Your task to perform on an android device: open the mobile data screen to see how much data has been used Image 0: 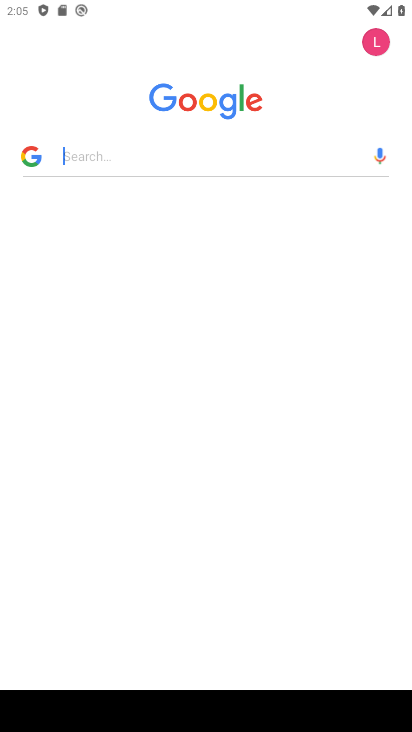
Step 0: press back button
Your task to perform on an android device: open the mobile data screen to see how much data has been used Image 1: 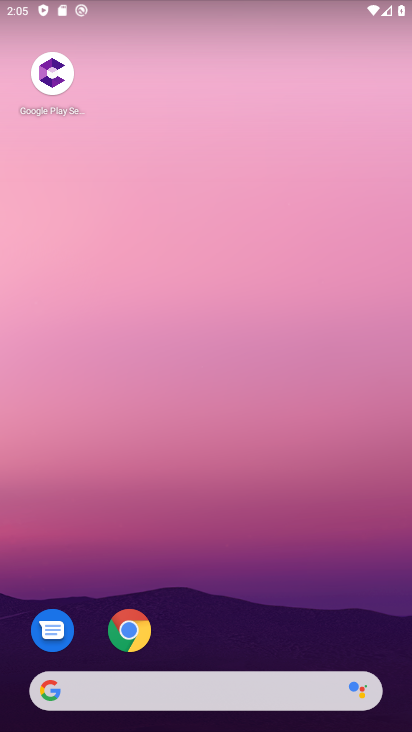
Step 1: drag from (276, 701) to (158, 147)
Your task to perform on an android device: open the mobile data screen to see how much data has been used Image 2: 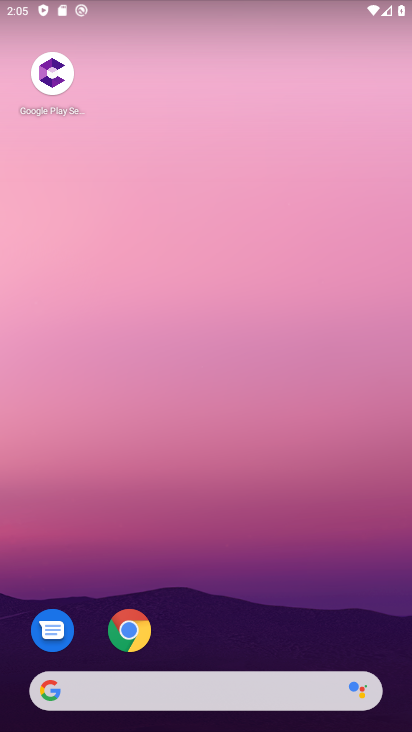
Step 2: drag from (177, 509) to (154, 177)
Your task to perform on an android device: open the mobile data screen to see how much data has been used Image 3: 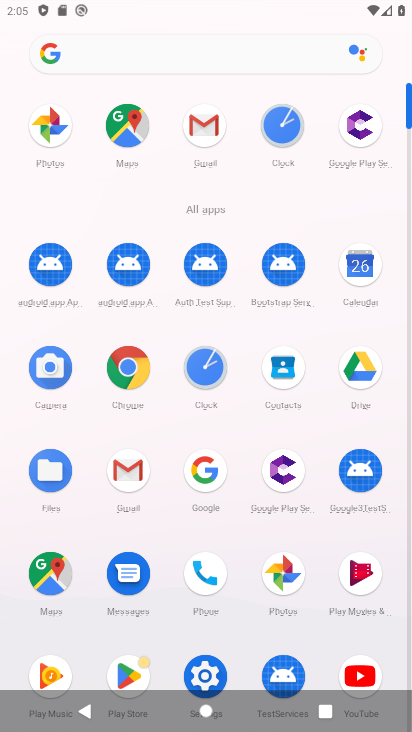
Step 3: drag from (297, 96) to (277, 4)
Your task to perform on an android device: open the mobile data screen to see how much data has been used Image 4: 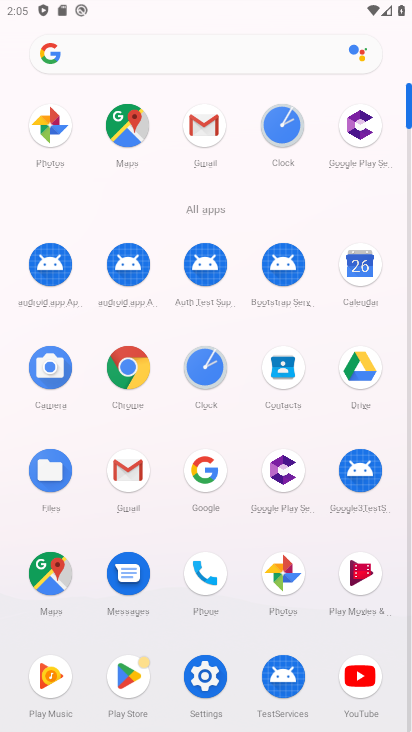
Step 4: drag from (256, 281) to (231, 170)
Your task to perform on an android device: open the mobile data screen to see how much data has been used Image 5: 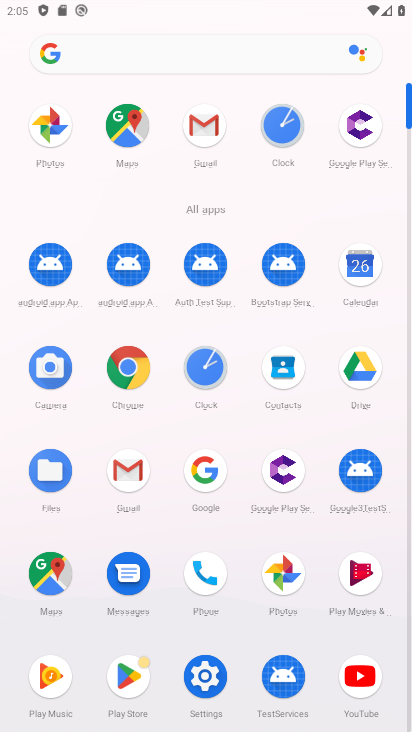
Step 5: drag from (271, 381) to (280, 186)
Your task to perform on an android device: open the mobile data screen to see how much data has been used Image 6: 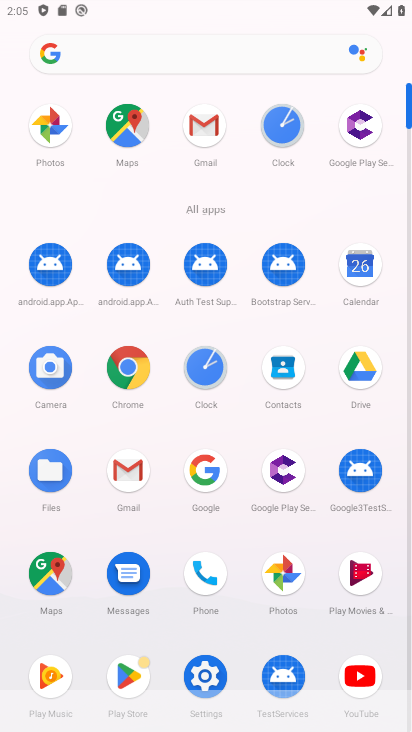
Step 6: click (202, 670)
Your task to perform on an android device: open the mobile data screen to see how much data has been used Image 7: 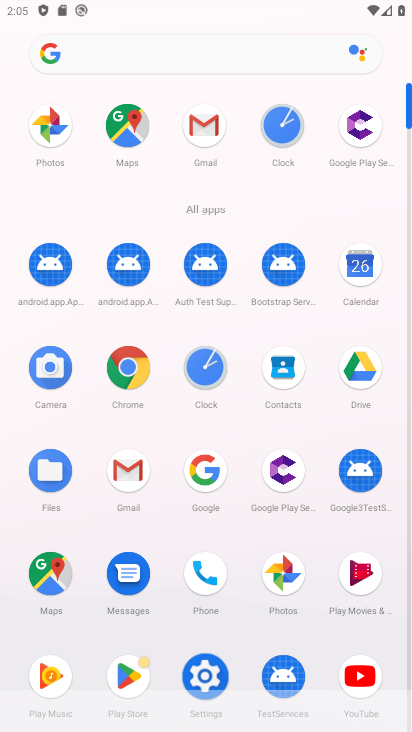
Step 7: click (200, 668)
Your task to perform on an android device: open the mobile data screen to see how much data has been used Image 8: 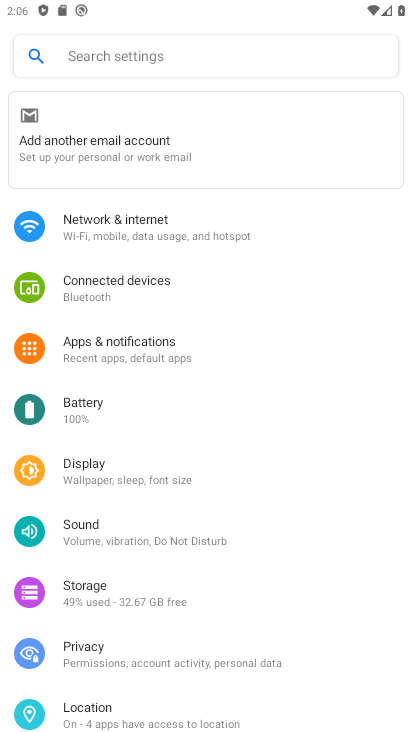
Step 8: click (109, 235)
Your task to perform on an android device: open the mobile data screen to see how much data has been used Image 9: 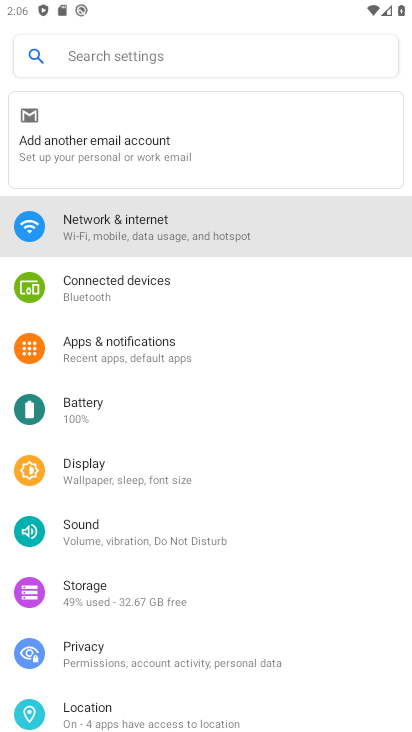
Step 9: click (110, 233)
Your task to perform on an android device: open the mobile data screen to see how much data has been used Image 10: 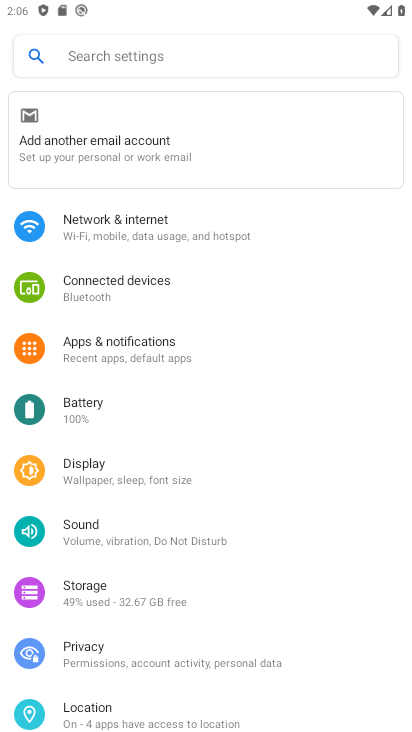
Step 10: click (110, 232)
Your task to perform on an android device: open the mobile data screen to see how much data has been used Image 11: 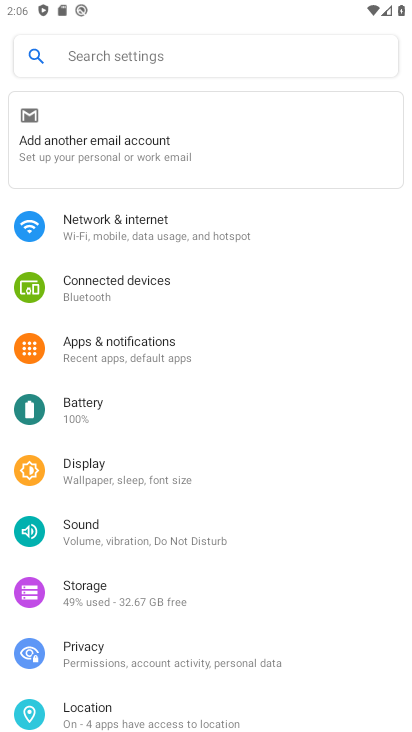
Step 11: click (110, 231)
Your task to perform on an android device: open the mobile data screen to see how much data has been used Image 12: 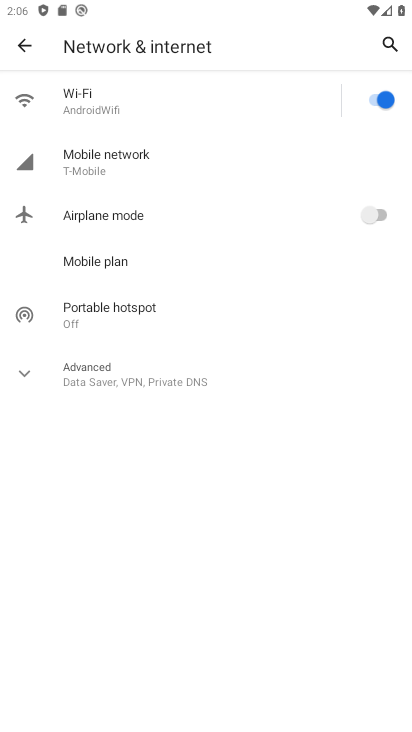
Step 12: click (112, 229)
Your task to perform on an android device: open the mobile data screen to see how much data has been used Image 13: 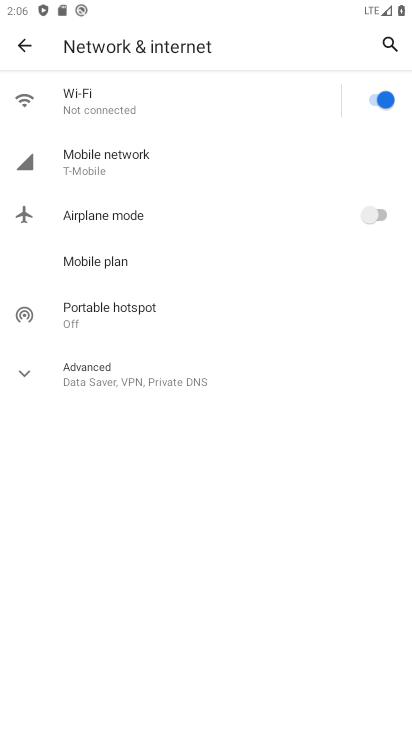
Step 13: task complete